Your task to perform on an android device: turn on notifications settings in the gmail app Image 0: 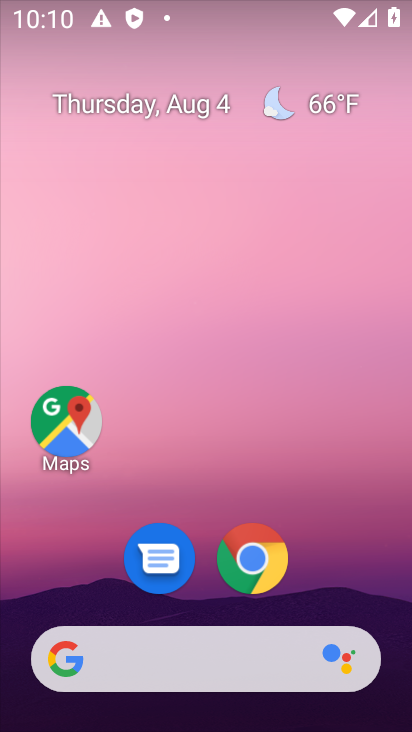
Step 0: drag from (342, 591) to (204, 113)
Your task to perform on an android device: turn on notifications settings in the gmail app Image 1: 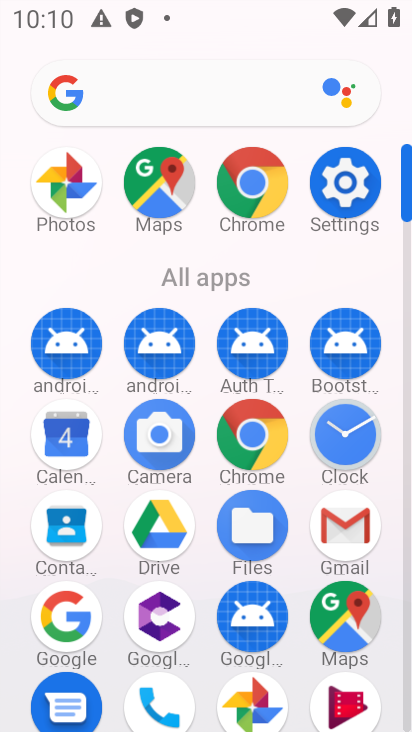
Step 1: click (336, 524)
Your task to perform on an android device: turn on notifications settings in the gmail app Image 2: 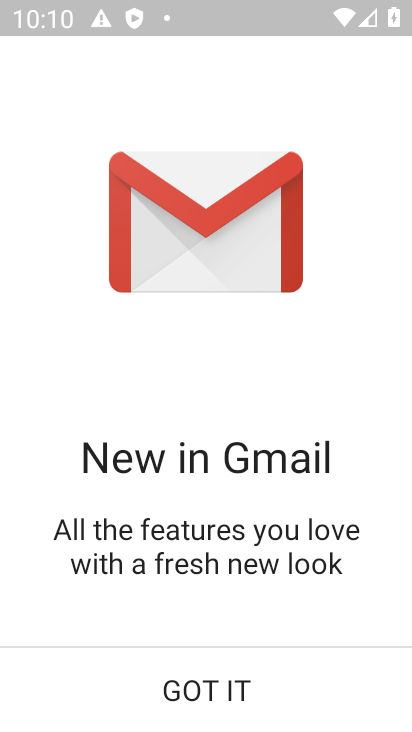
Step 2: click (167, 671)
Your task to perform on an android device: turn on notifications settings in the gmail app Image 3: 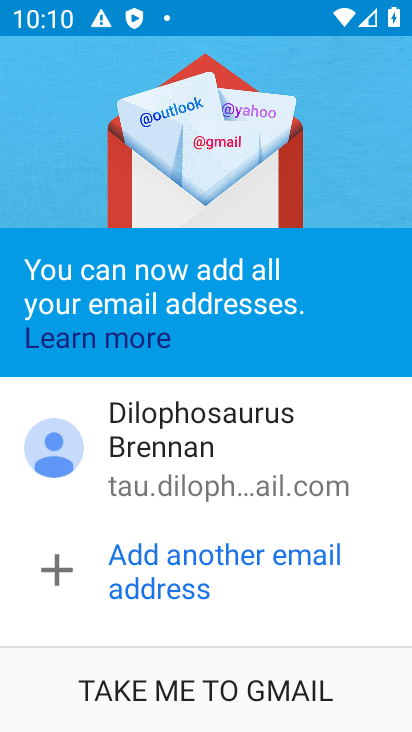
Step 3: click (167, 671)
Your task to perform on an android device: turn on notifications settings in the gmail app Image 4: 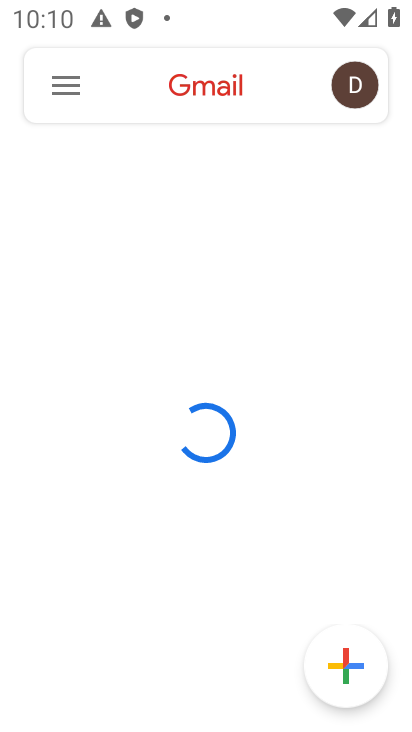
Step 4: click (50, 83)
Your task to perform on an android device: turn on notifications settings in the gmail app Image 5: 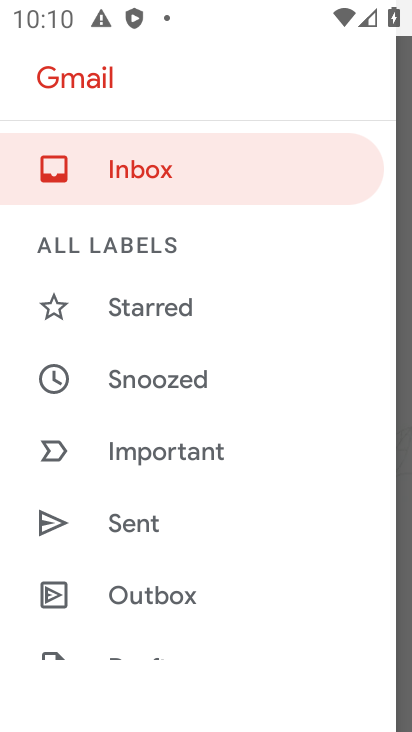
Step 5: drag from (144, 577) to (254, 134)
Your task to perform on an android device: turn on notifications settings in the gmail app Image 6: 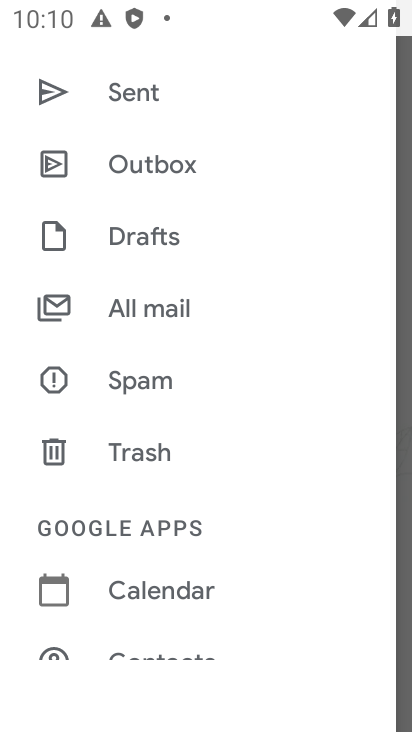
Step 6: drag from (209, 542) to (274, 294)
Your task to perform on an android device: turn on notifications settings in the gmail app Image 7: 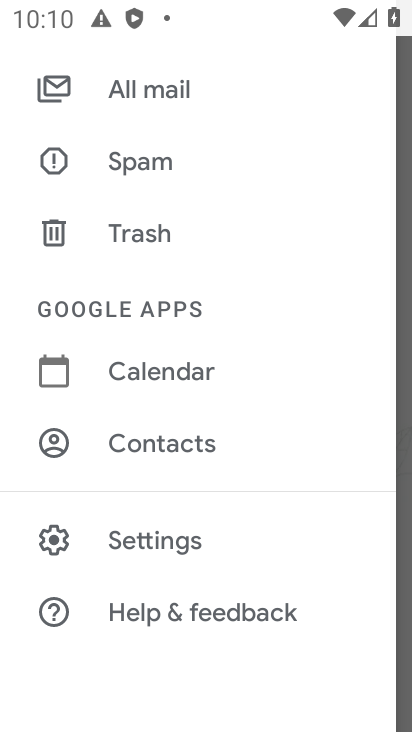
Step 7: click (146, 541)
Your task to perform on an android device: turn on notifications settings in the gmail app Image 8: 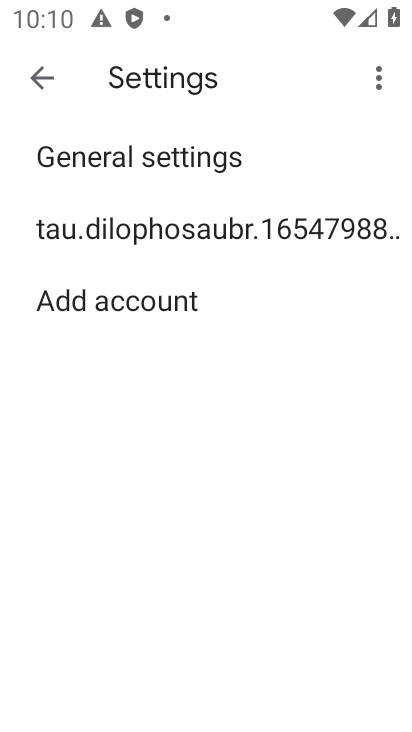
Step 8: click (192, 235)
Your task to perform on an android device: turn on notifications settings in the gmail app Image 9: 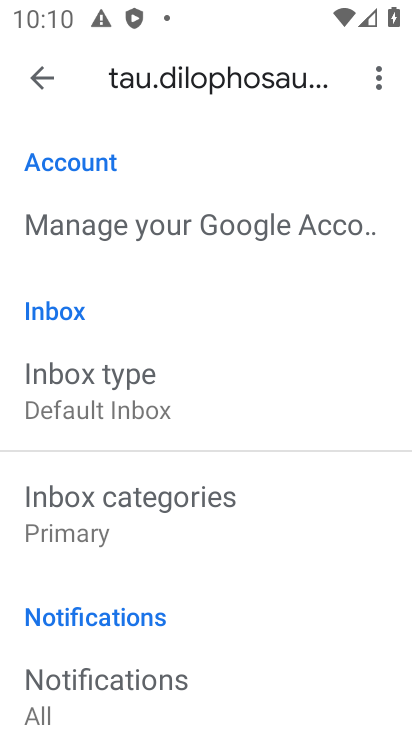
Step 9: drag from (286, 575) to (254, 266)
Your task to perform on an android device: turn on notifications settings in the gmail app Image 10: 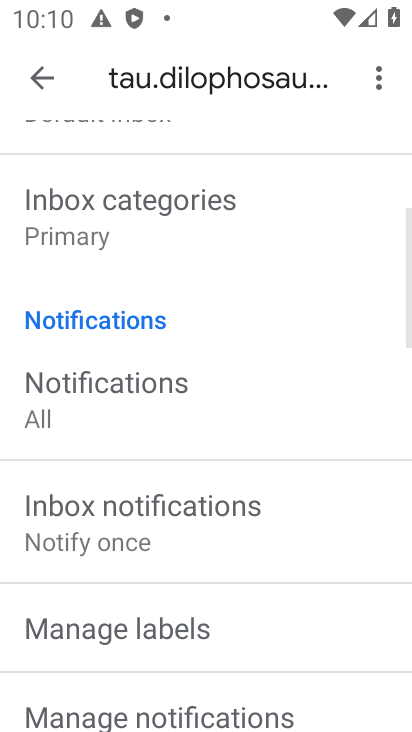
Step 10: click (163, 724)
Your task to perform on an android device: turn on notifications settings in the gmail app Image 11: 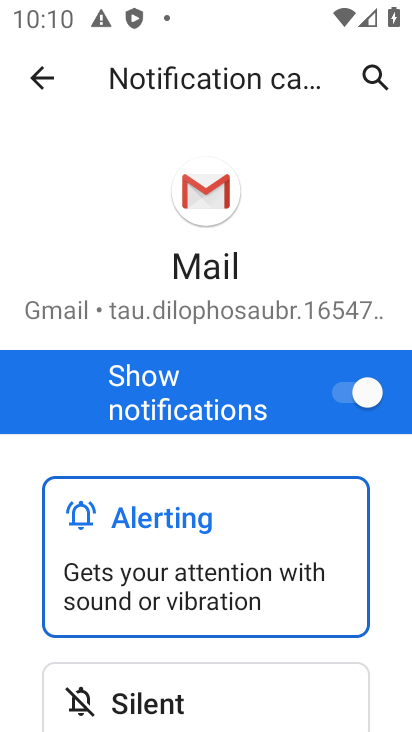
Step 11: task complete